Your task to perform on an android device: empty trash in the gmail app Image 0: 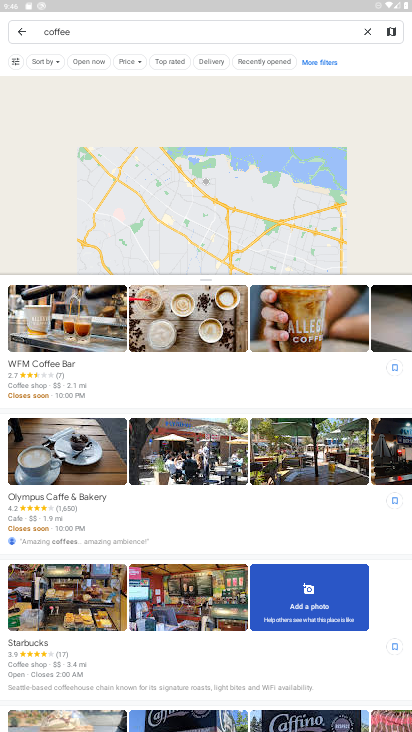
Step 0: press home button
Your task to perform on an android device: empty trash in the gmail app Image 1: 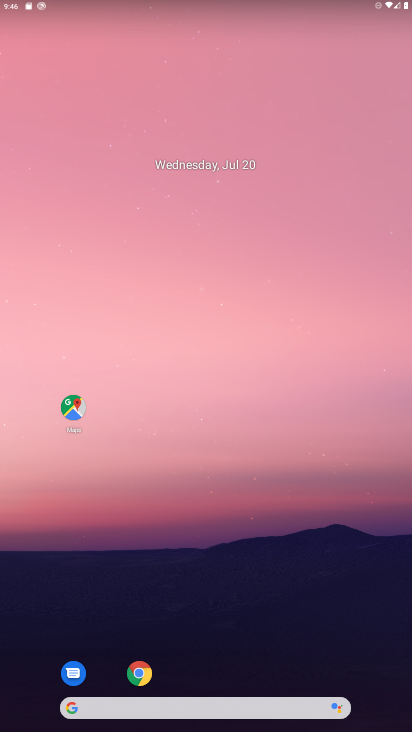
Step 1: drag from (182, 626) to (198, 64)
Your task to perform on an android device: empty trash in the gmail app Image 2: 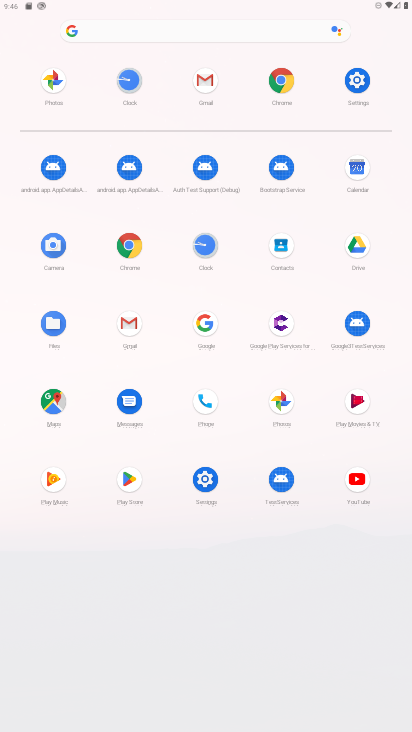
Step 2: click (198, 81)
Your task to perform on an android device: empty trash in the gmail app Image 3: 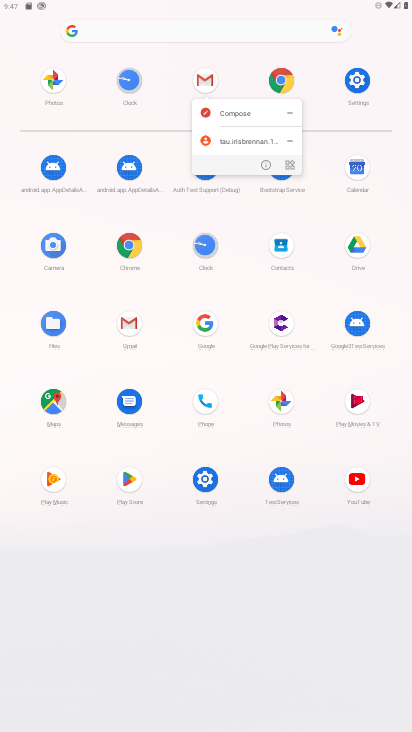
Step 3: drag from (210, 684) to (295, 335)
Your task to perform on an android device: empty trash in the gmail app Image 4: 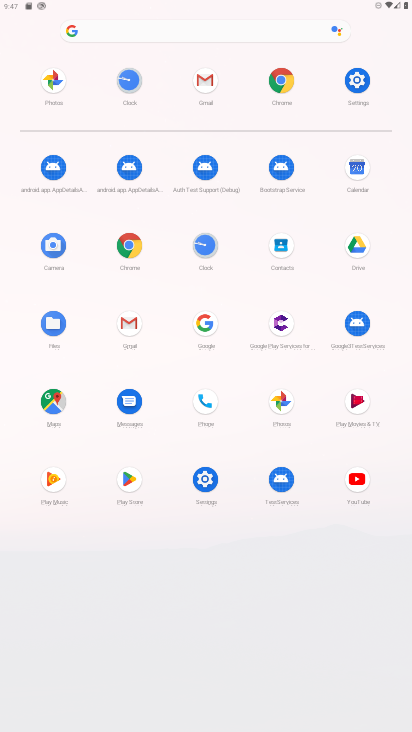
Step 4: click (192, 80)
Your task to perform on an android device: empty trash in the gmail app Image 5: 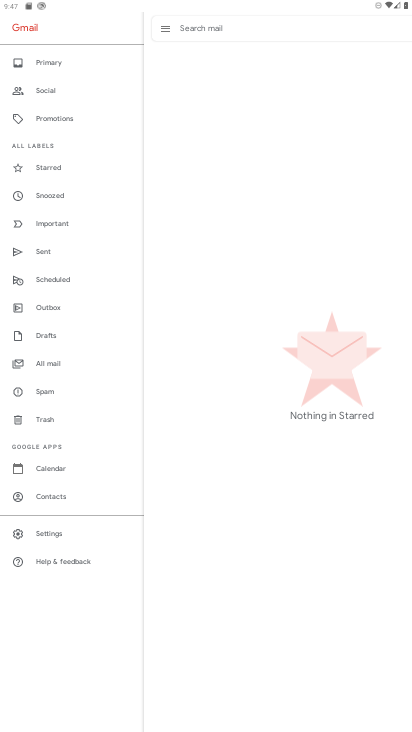
Step 5: click (47, 417)
Your task to perform on an android device: empty trash in the gmail app Image 6: 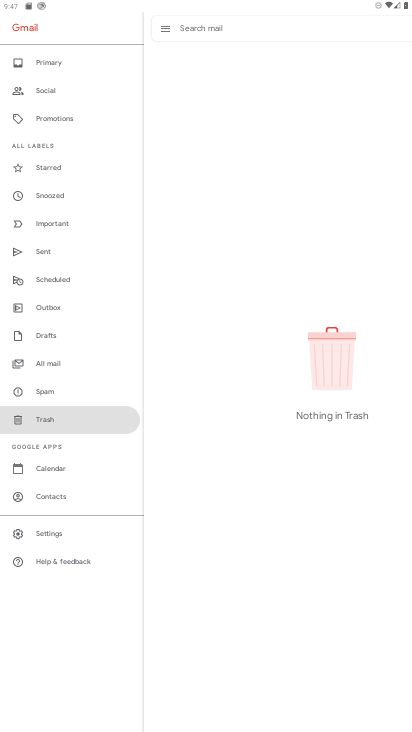
Step 6: task complete